Your task to perform on an android device: Open settings Image 0: 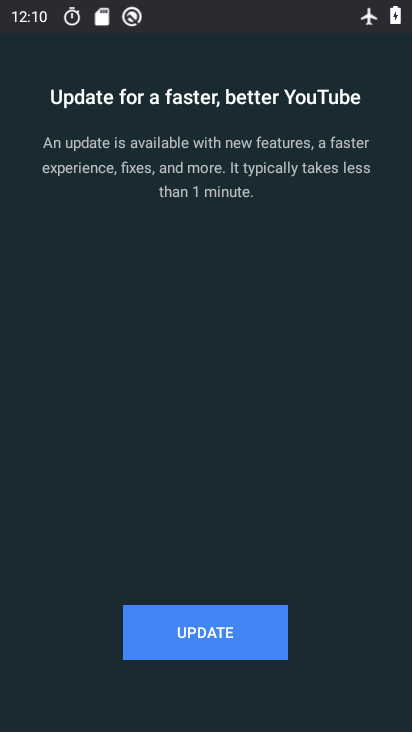
Step 0: press home button
Your task to perform on an android device: Open settings Image 1: 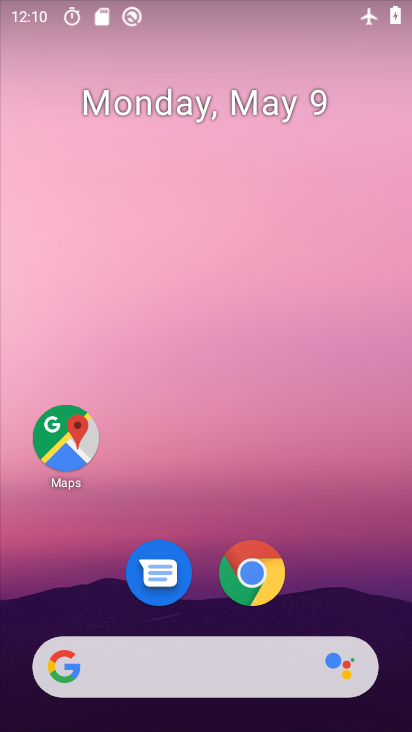
Step 1: click (220, 331)
Your task to perform on an android device: Open settings Image 2: 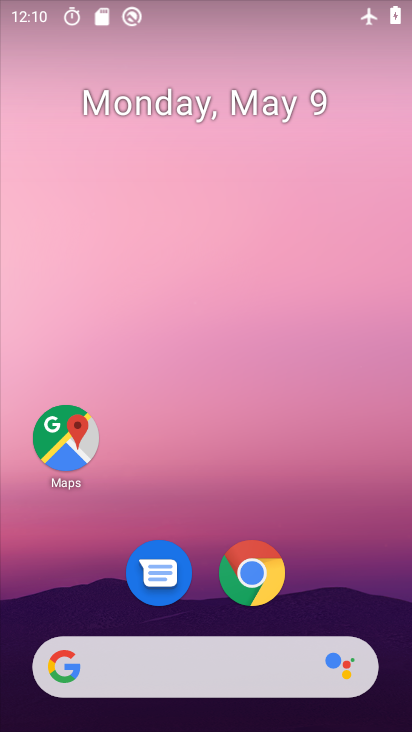
Step 2: drag from (213, 632) to (177, 257)
Your task to perform on an android device: Open settings Image 3: 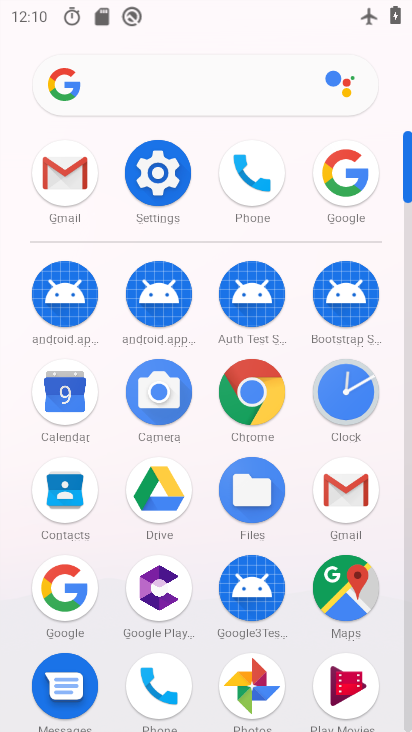
Step 3: click (163, 174)
Your task to perform on an android device: Open settings Image 4: 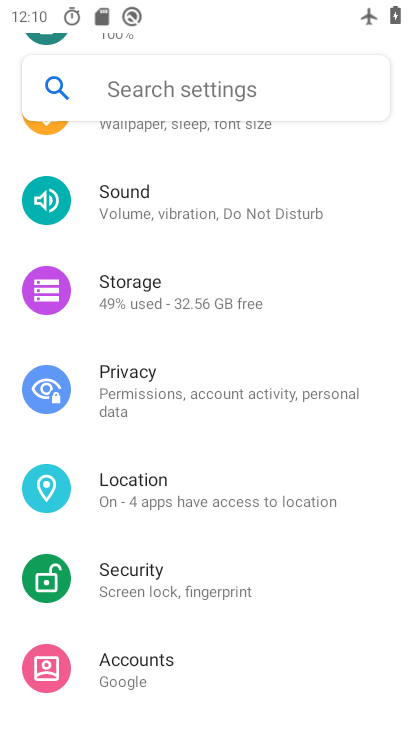
Step 4: click (195, 271)
Your task to perform on an android device: Open settings Image 5: 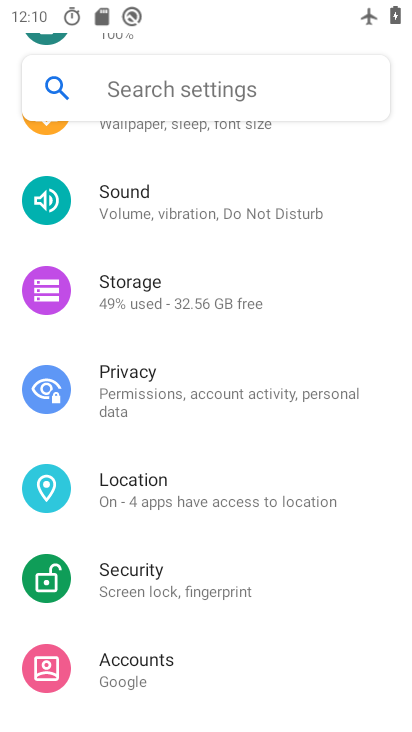
Step 5: task complete